Your task to perform on an android device: Do I have any events tomorrow? Image 0: 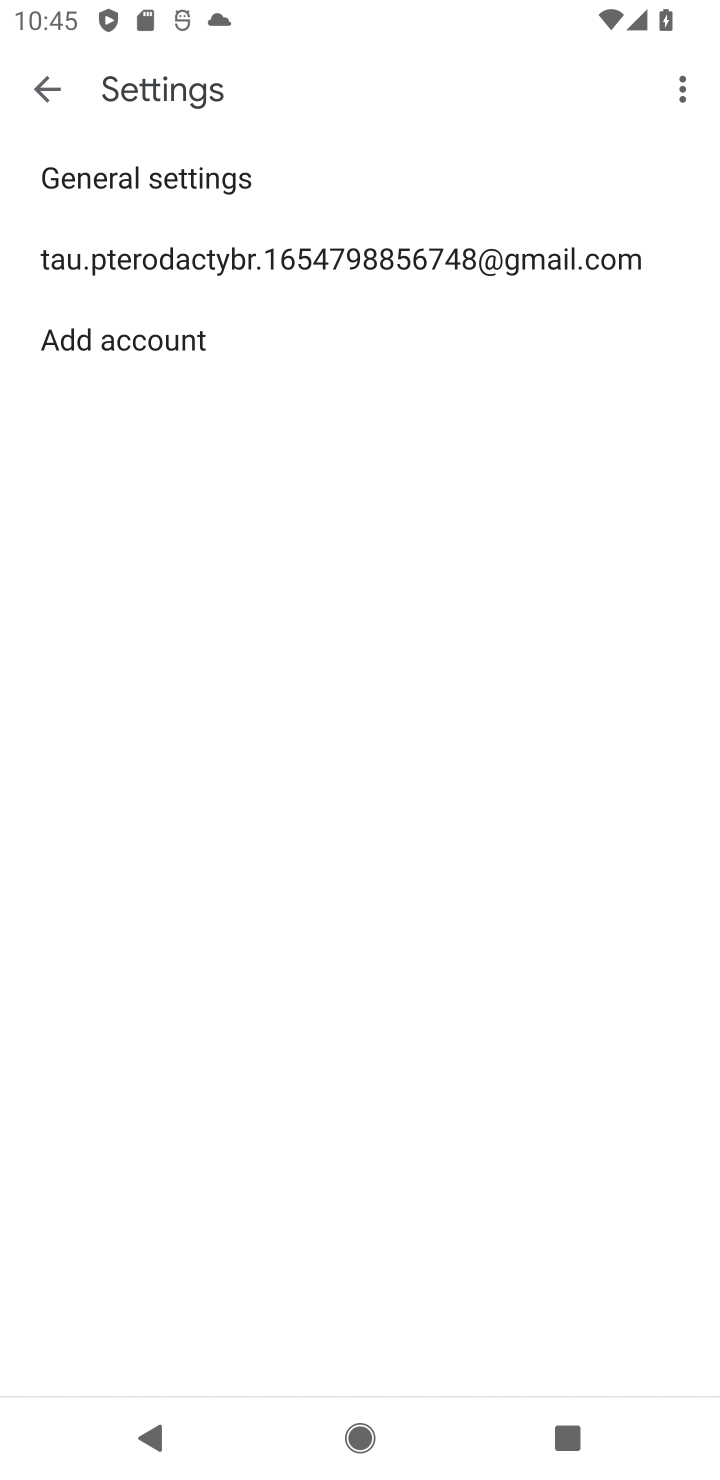
Step 0: press home button
Your task to perform on an android device: Do I have any events tomorrow? Image 1: 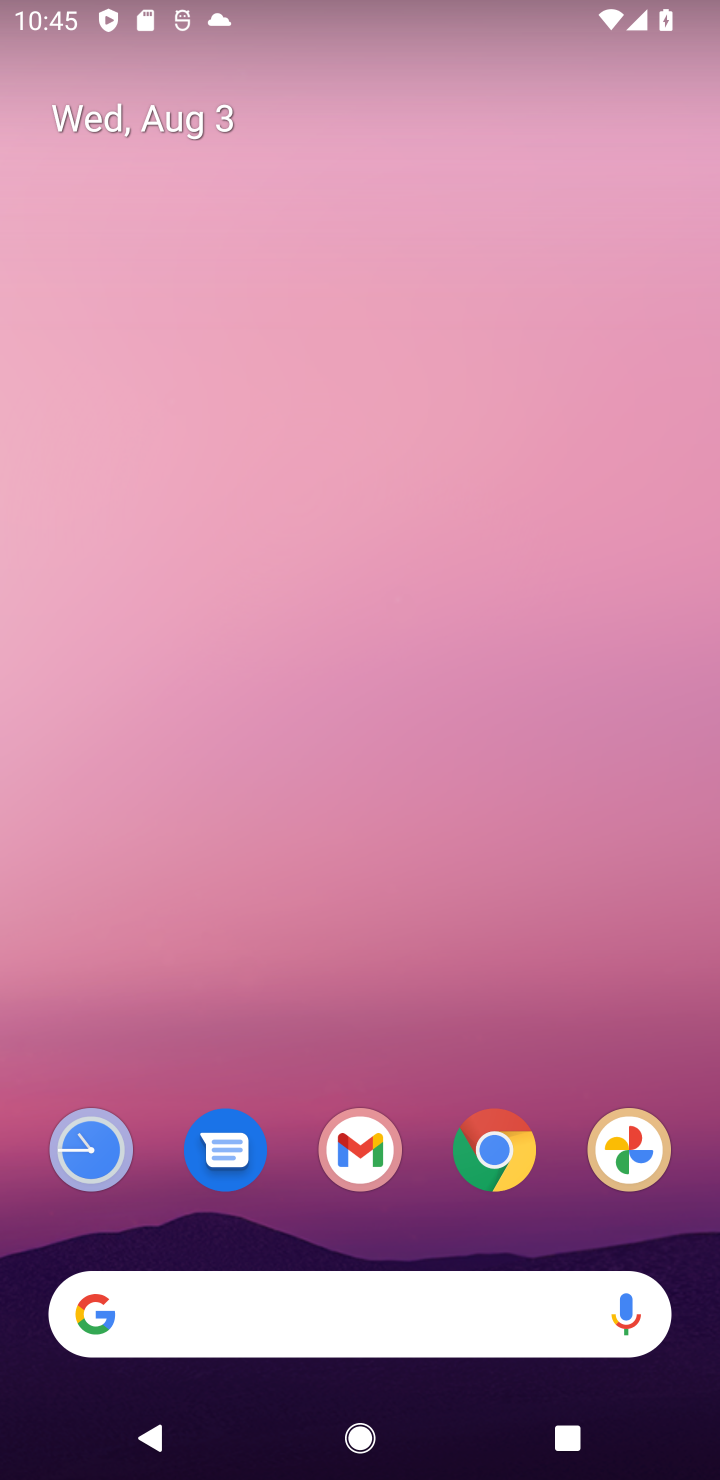
Step 1: drag from (561, 1097) to (585, 226)
Your task to perform on an android device: Do I have any events tomorrow? Image 2: 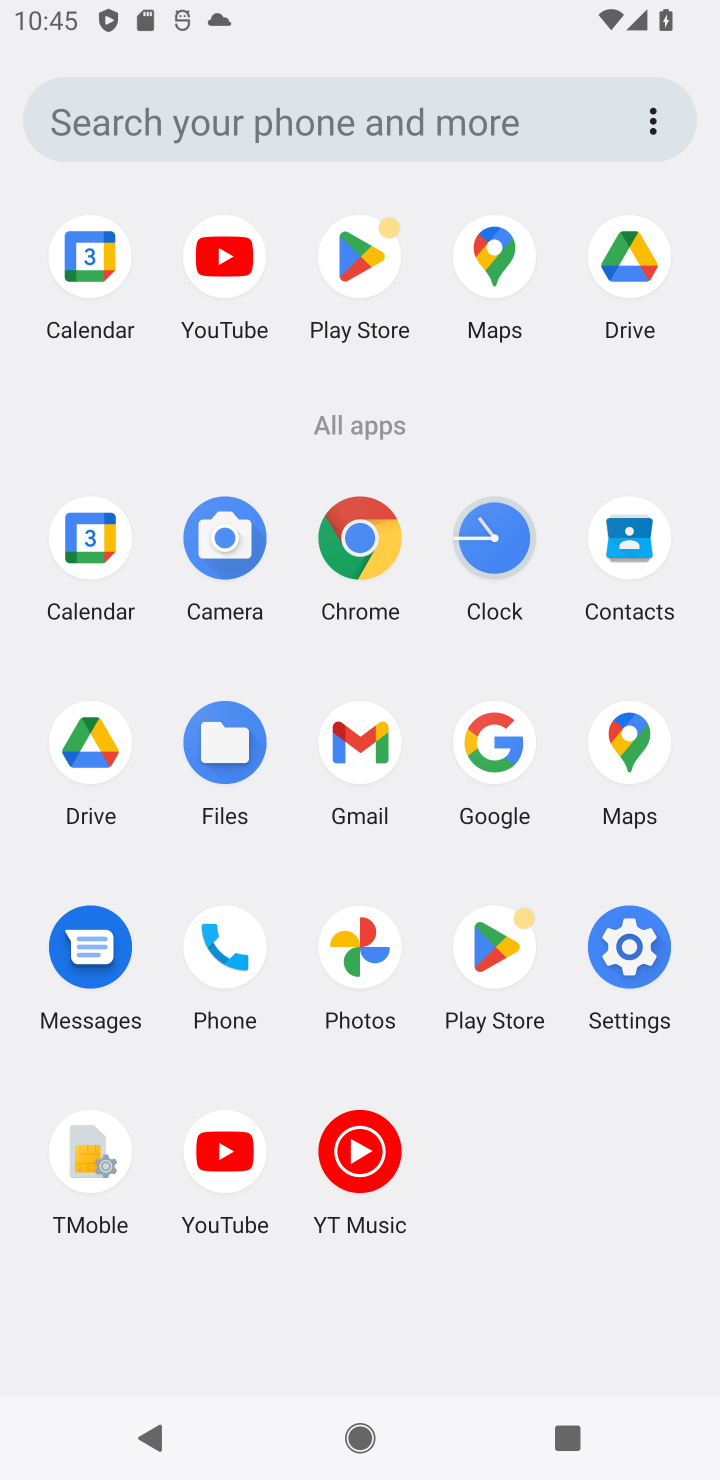
Step 2: click (90, 546)
Your task to perform on an android device: Do I have any events tomorrow? Image 3: 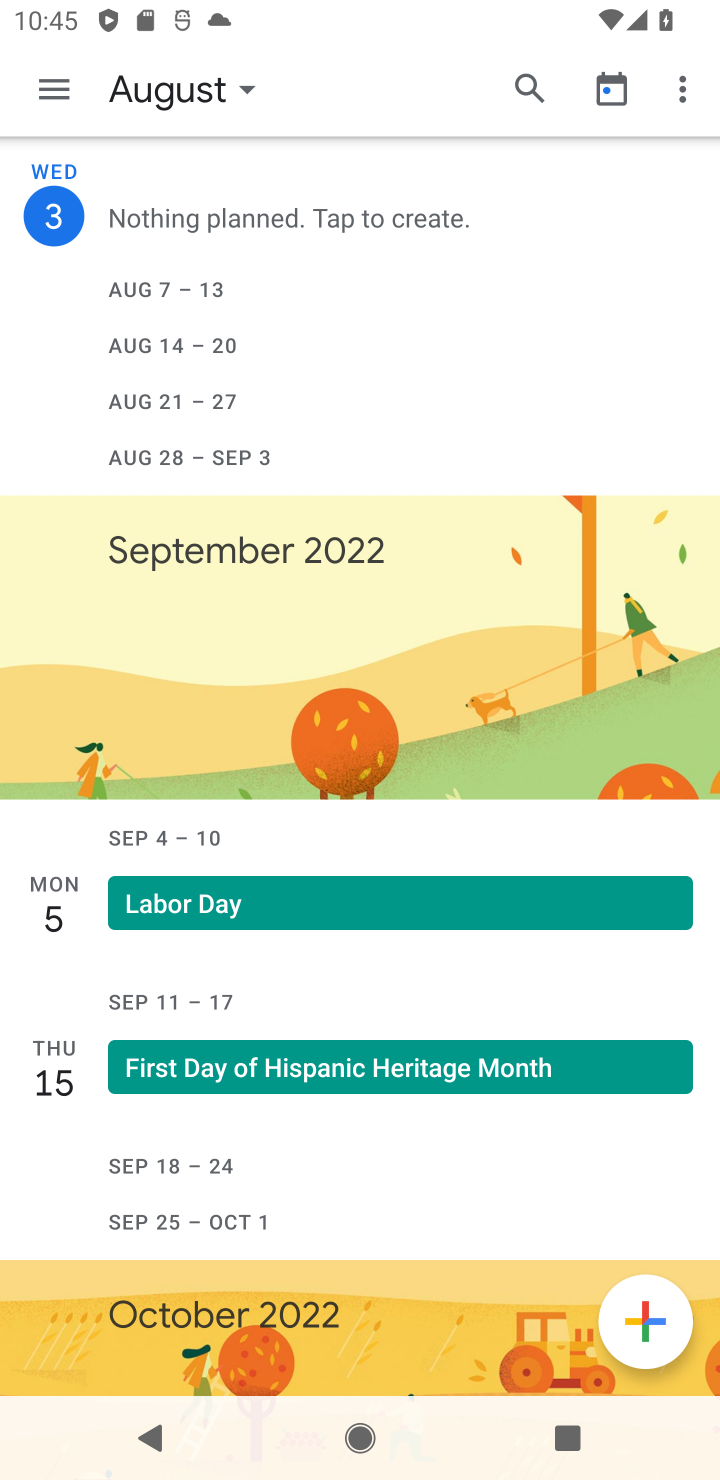
Step 3: click (244, 97)
Your task to perform on an android device: Do I have any events tomorrow? Image 4: 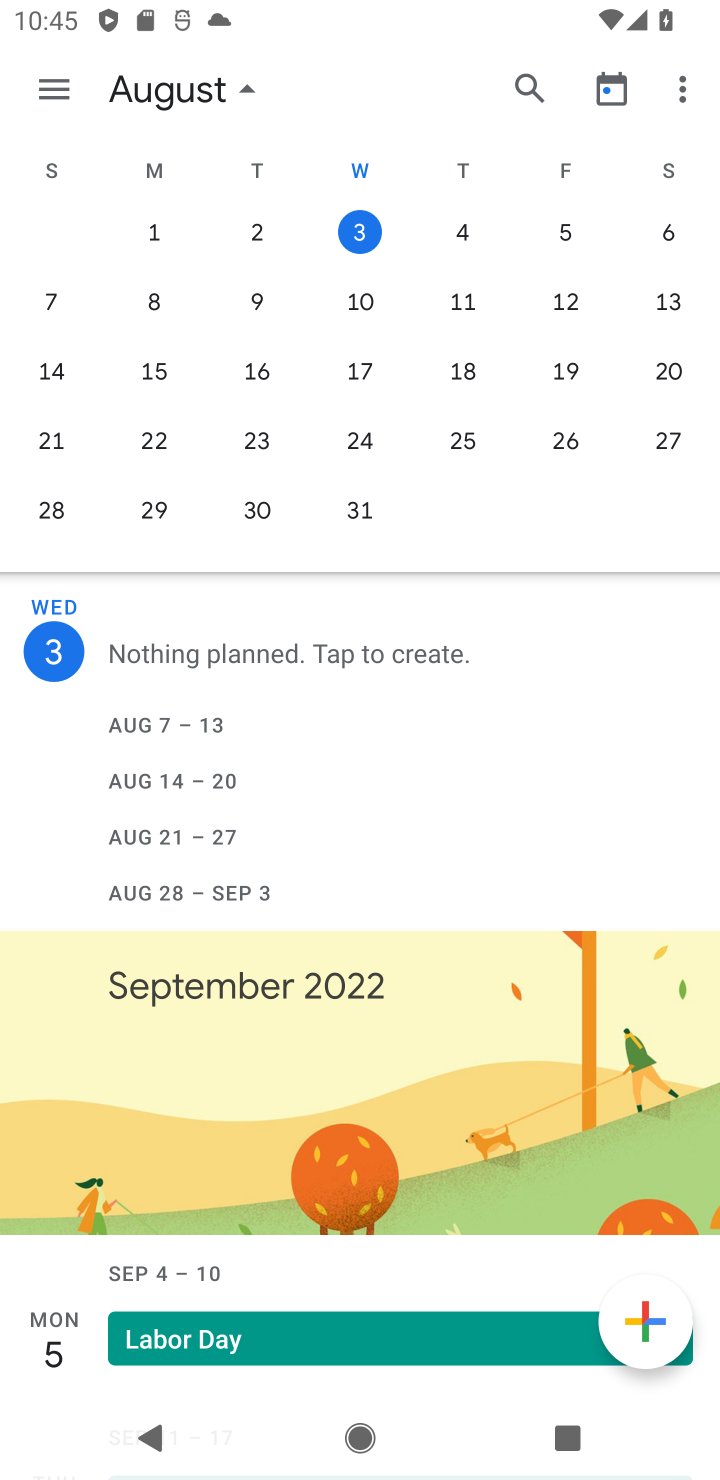
Step 4: click (461, 228)
Your task to perform on an android device: Do I have any events tomorrow? Image 5: 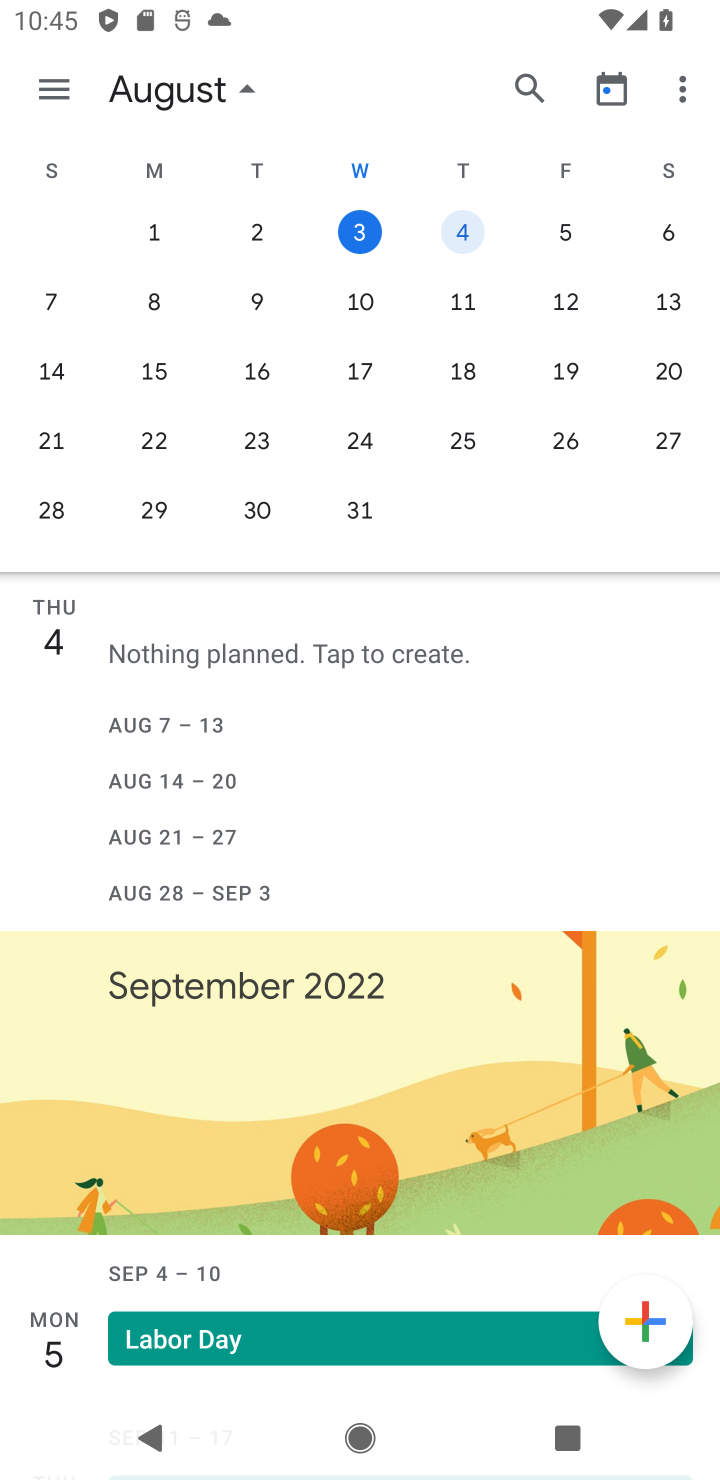
Step 5: task complete